Your task to perform on an android device: visit the assistant section in the google photos Image 0: 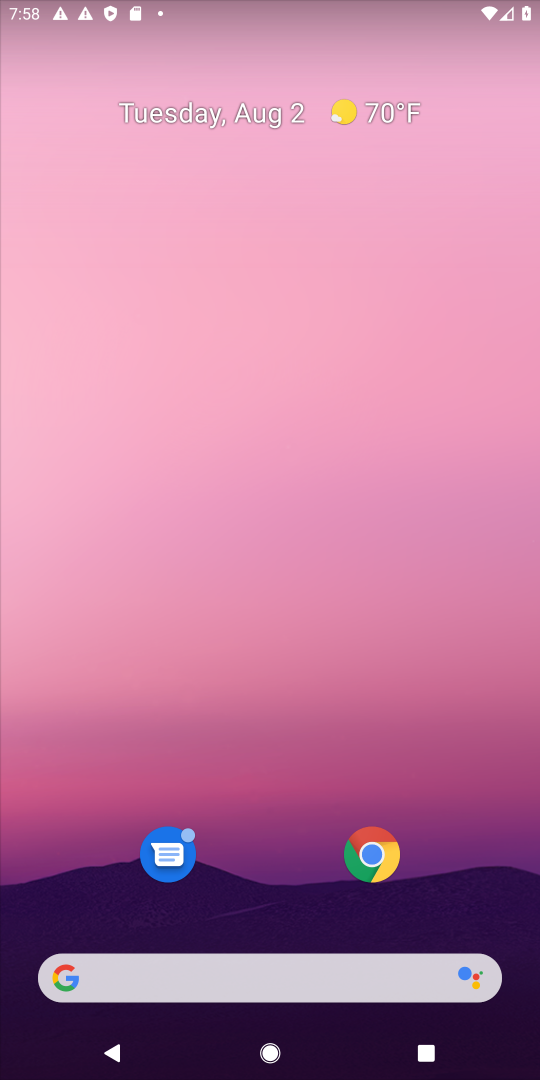
Step 0: drag from (456, 900) to (491, 144)
Your task to perform on an android device: visit the assistant section in the google photos Image 1: 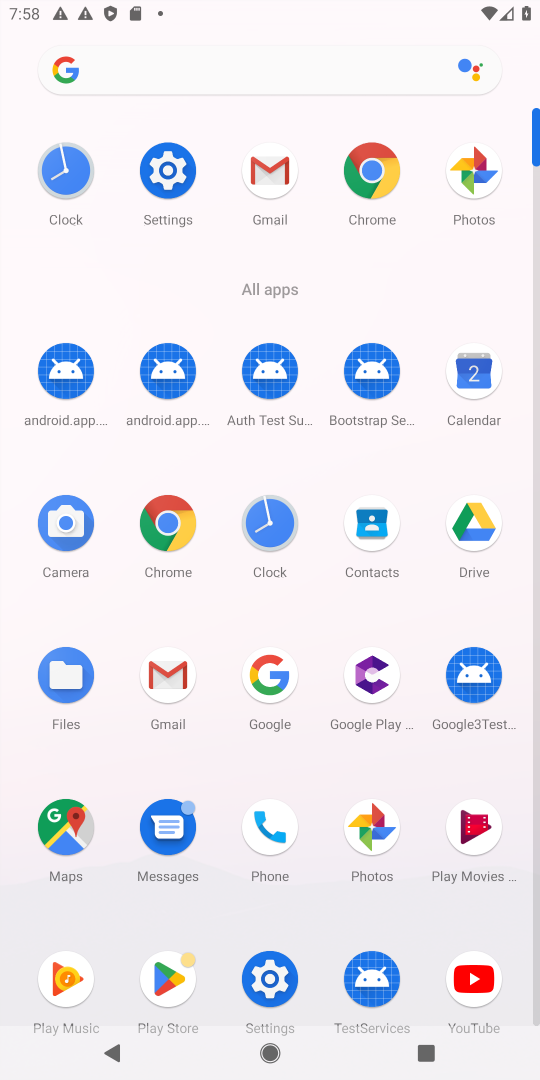
Step 1: drag from (416, 914) to (414, 404)
Your task to perform on an android device: visit the assistant section in the google photos Image 2: 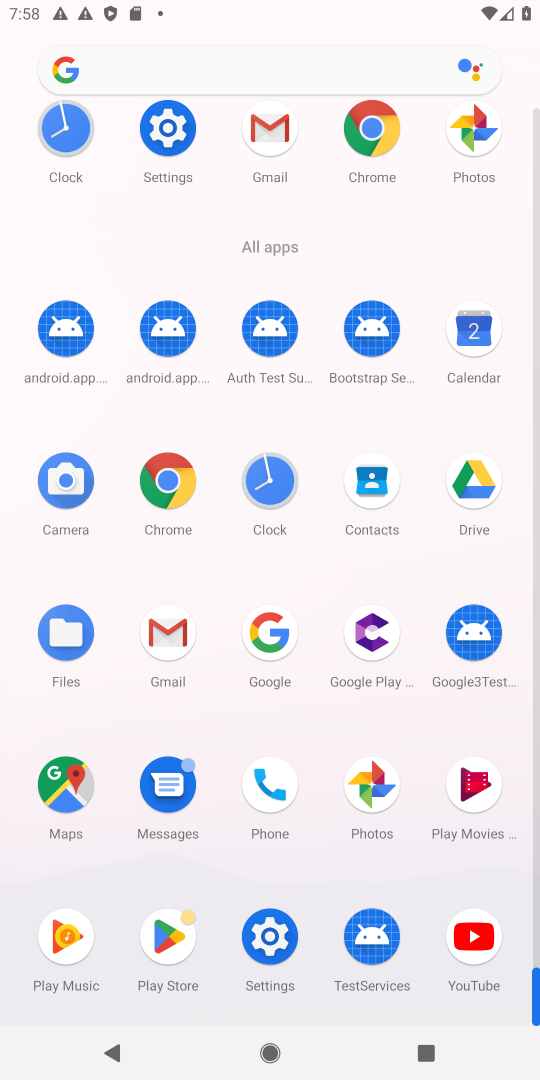
Step 2: click (366, 796)
Your task to perform on an android device: visit the assistant section in the google photos Image 3: 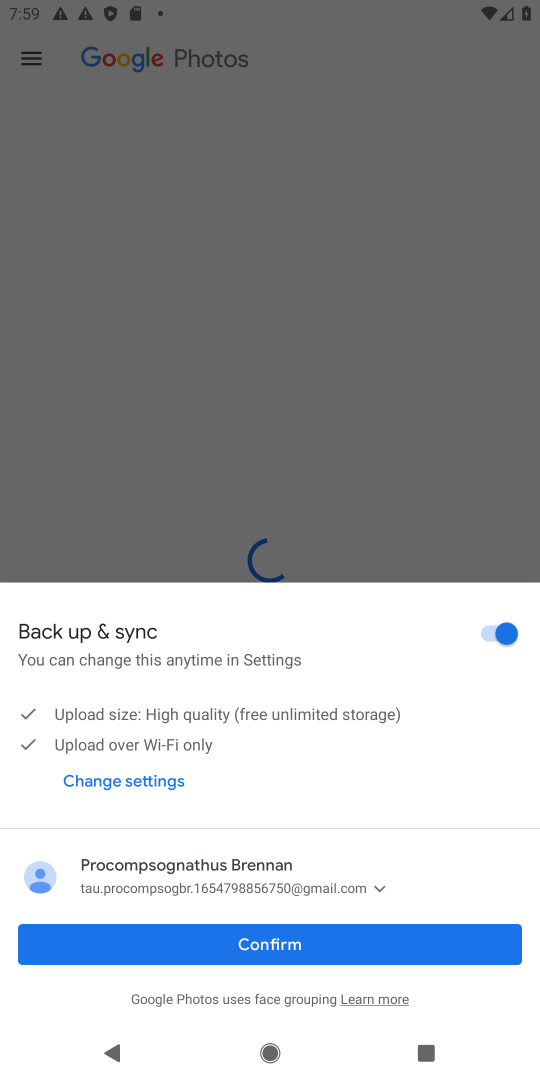
Step 3: click (347, 941)
Your task to perform on an android device: visit the assistant section in the google photos Image 4: 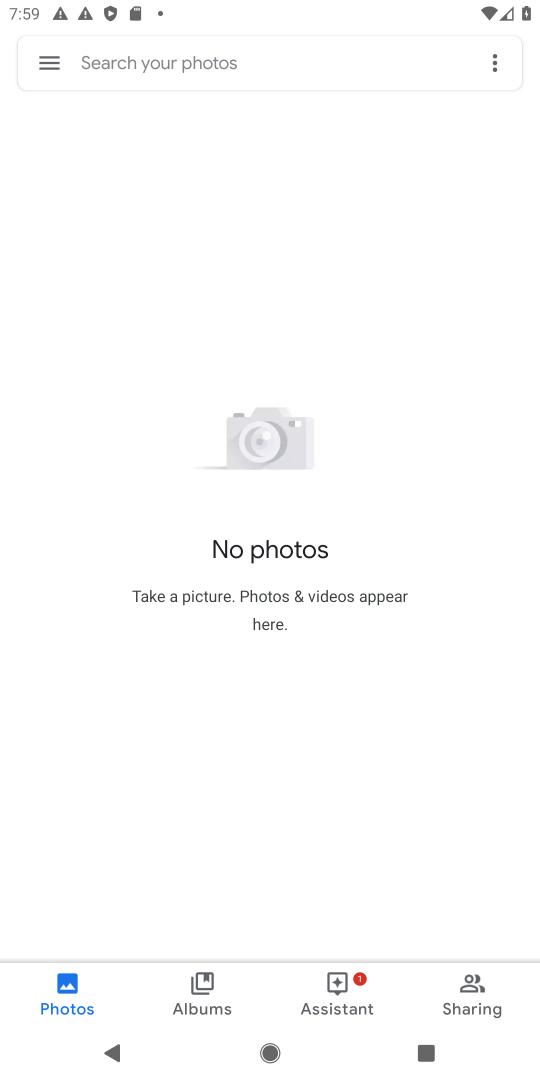
Step 4: click (339, 987)
Your task to perform on an android device: visit the assistant section in the google photos Image 5: 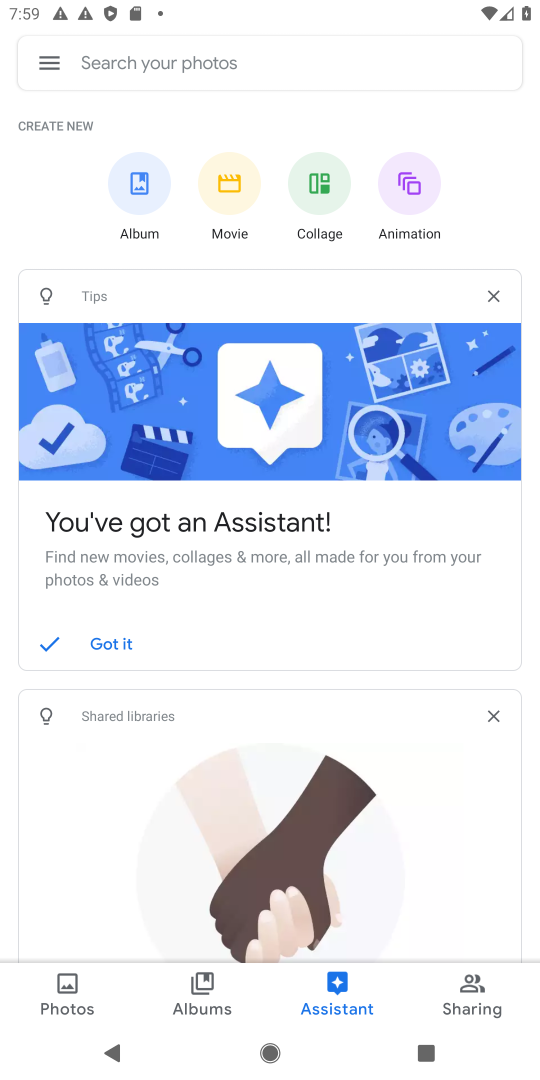
Step 5: task complete